Your task to perform on an android device: What is the recent news? Image 0: 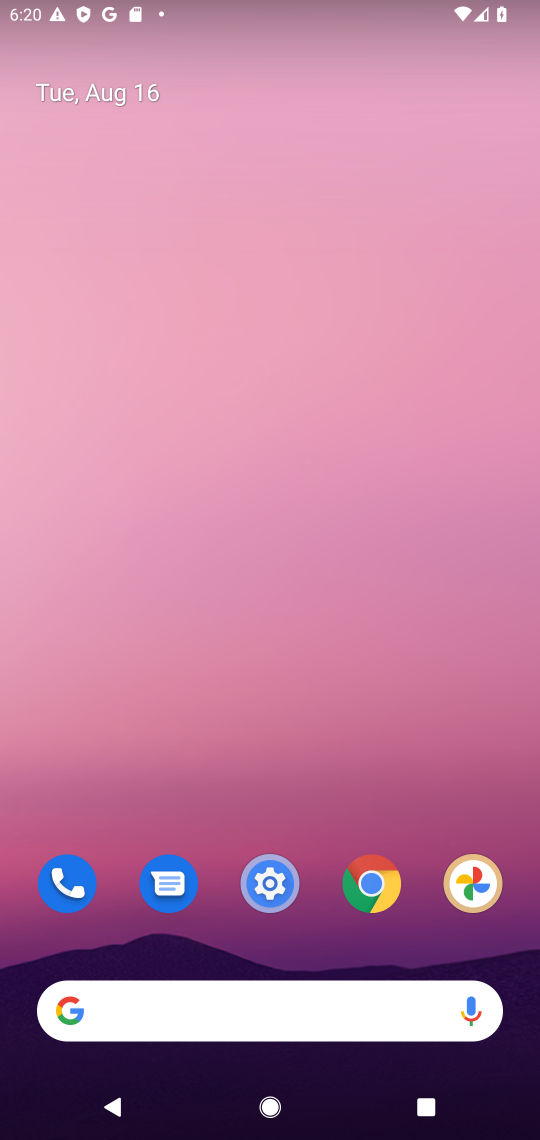
Step 0: drag from (155, 1014) to (329, 196)
Your task to perform on an android device: What is the recent news? Image 1: 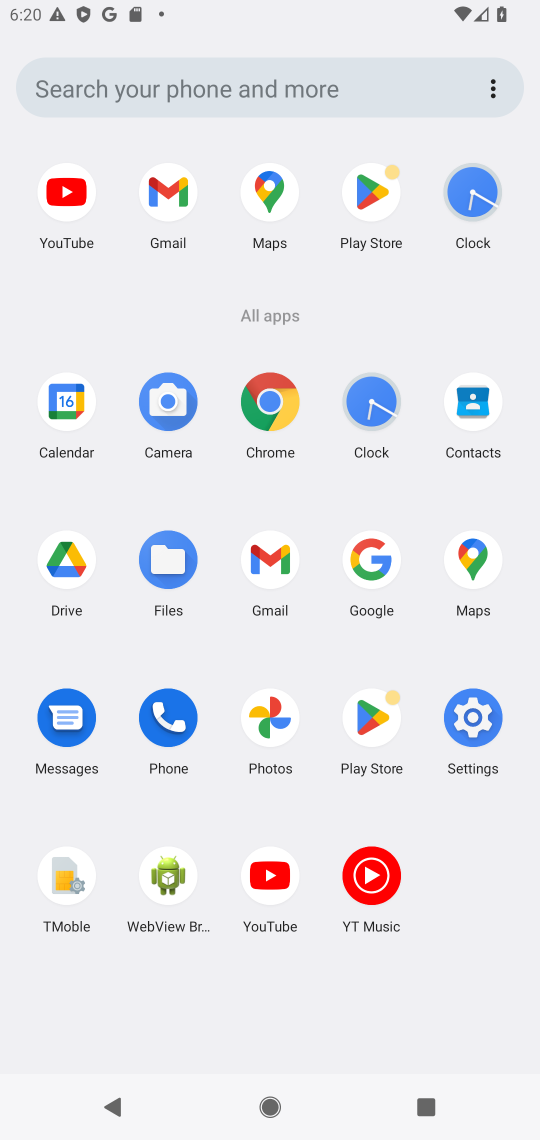
Step 1: click (371, 559)
Your task to perform on an android device: What is the recent news? Image 2: 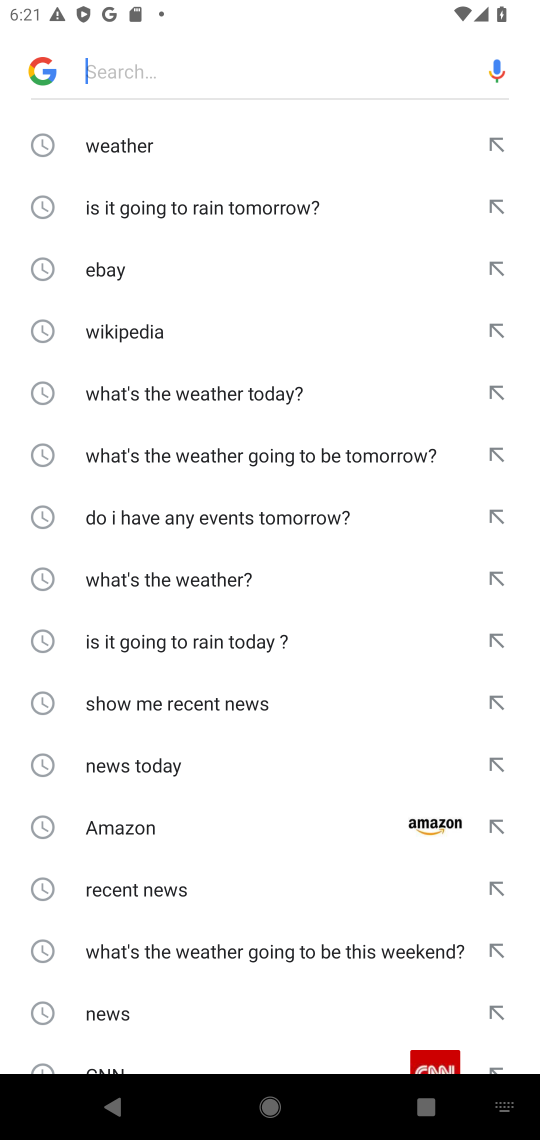
Step 2: click (166, 894)
Your task to perform on an android device: What is the recent news? Image 3: 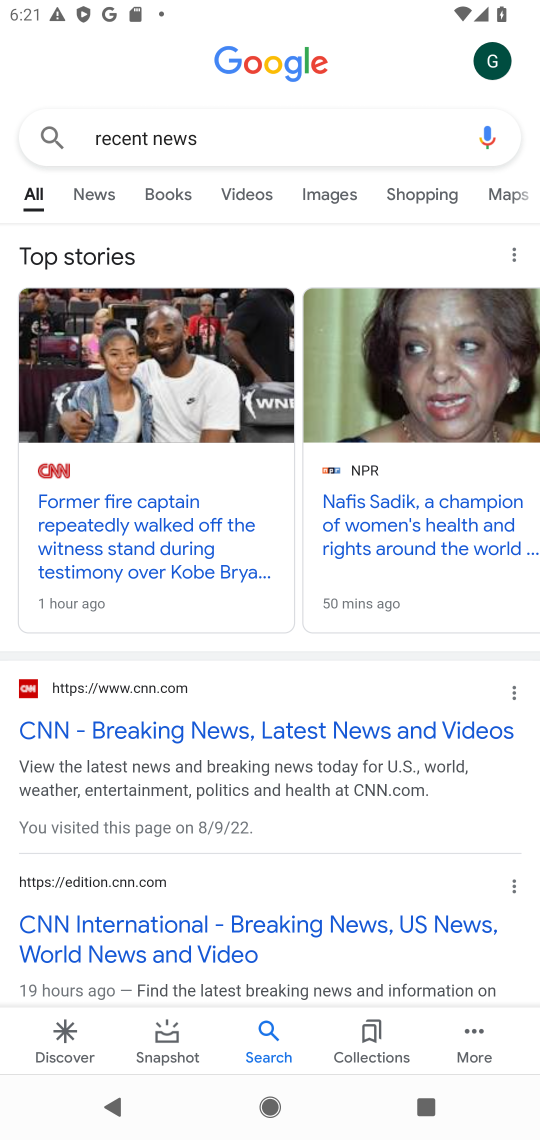
Step 3: click (117, 548)
Your task to perform on an android device: What is the recent news? Image 4: 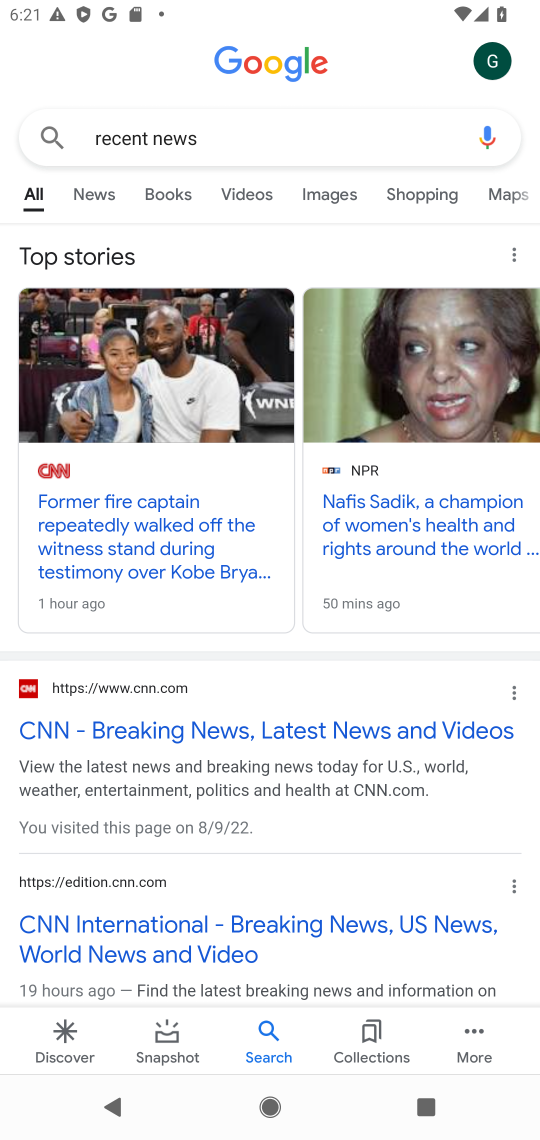
Step 4: click (117, 548)
Your task to perform on an android device: What is the recent news? Image 5: 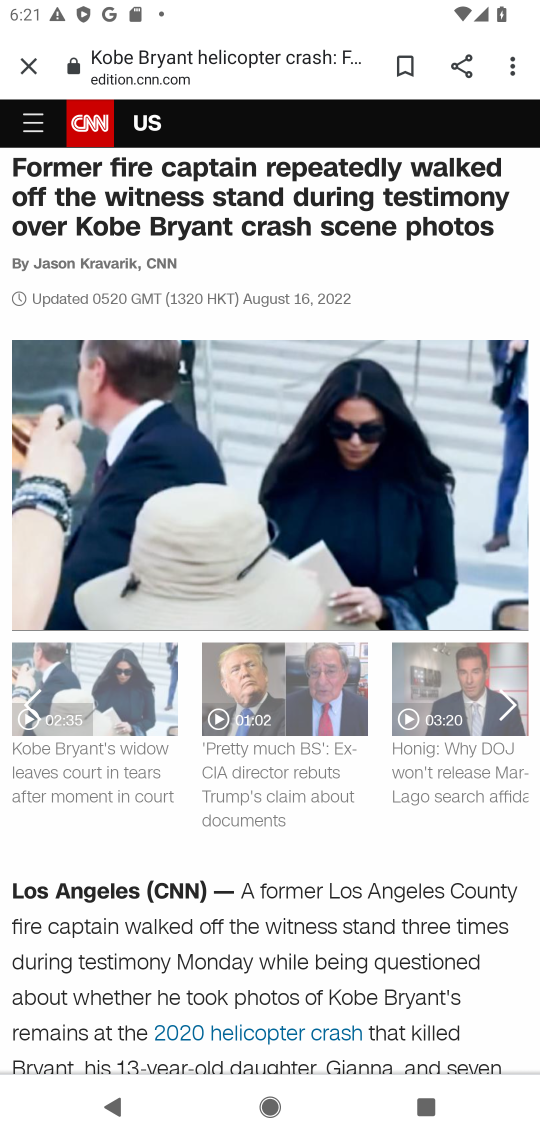
Step 5: task complete